Your task to perform on an android device: turn off sleep mode Image 0: 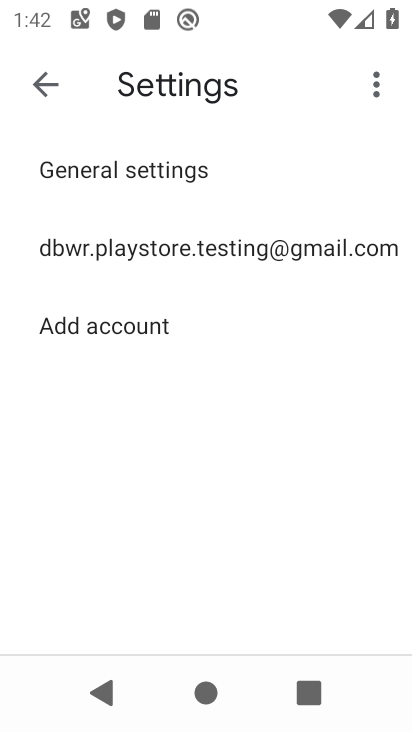
Step 0: press home button
Your task to perform on an android device: turn off sleep mode Image 1: 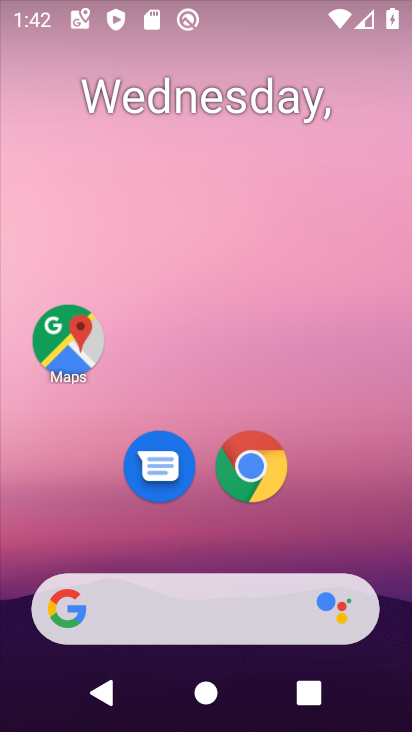
Step 1: drag from (310, 520) to (318, 9)
Your task to perform on an android device: turn off sleep mode Image 2: 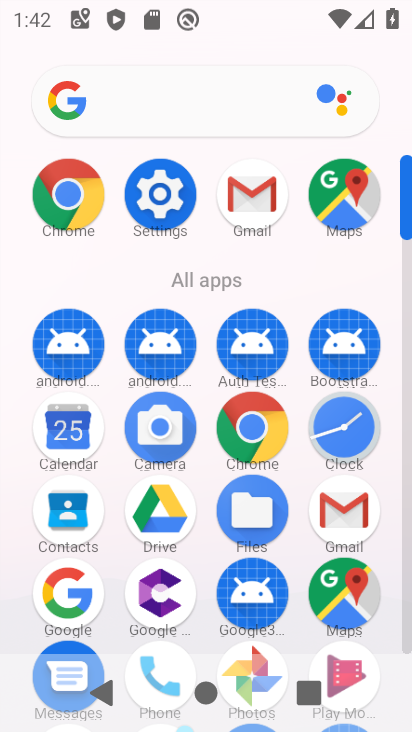
Step 2: click (158, 194)
Your task to perform on an android device: turn off sleep mode Image 3: 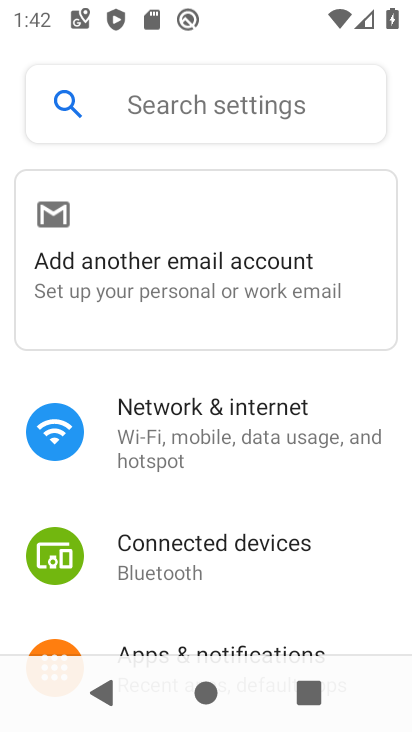
Step 3: drag from (258, 596) to (305, 337)
Your task to perform on an android device: turn off sleep mode Image 4: 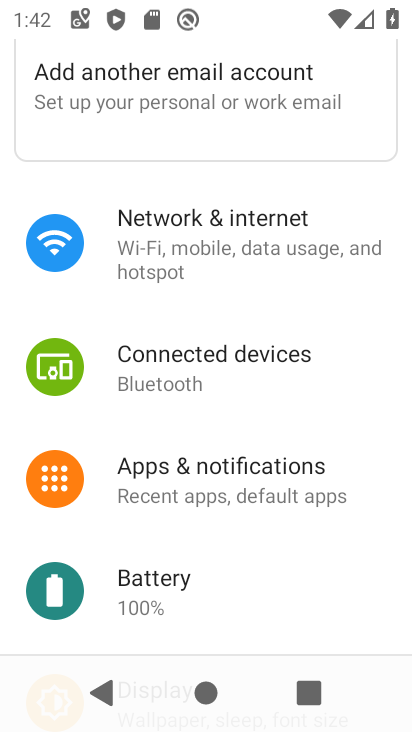
Step 4: drag from (224, 609) to (275, 294)
Your task to perform on an android device: turn off sleep mode Image 5: 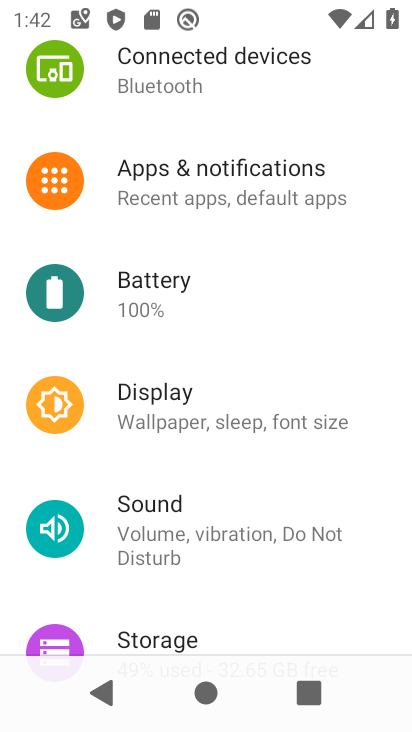
Step 5: click (242, 399)
Your task to perform on an android device: turn off sleep mode Image 6: 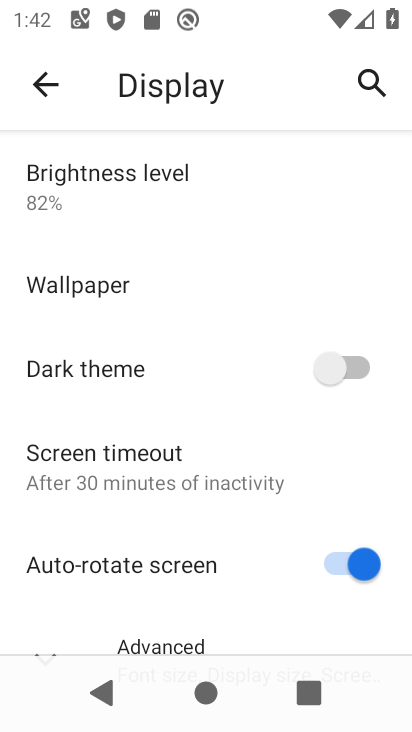
Step 6: drag from (215, 345) to (242, 144)
Your task to perform on an android device: turn off sleep mode Image 7: 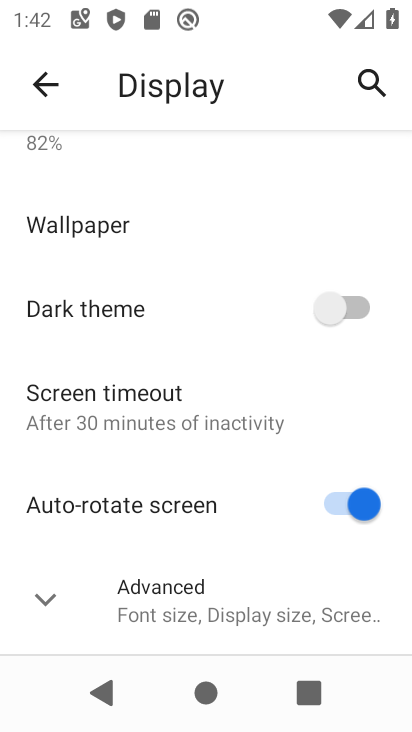
Step 7: click (55, 611)
Your task to perform on an android device: turn off sleep mode Image 8: 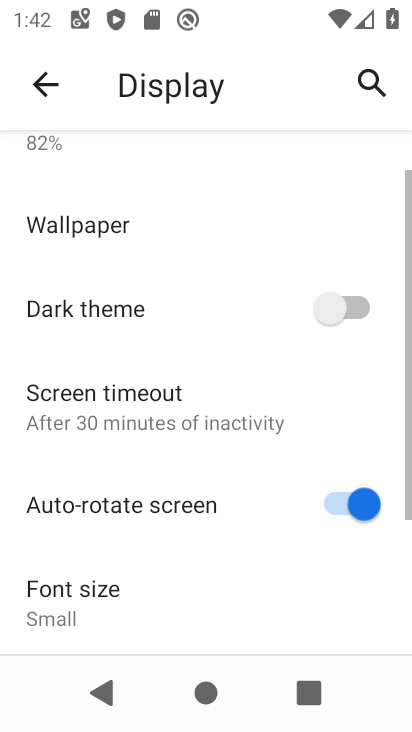
Step 8: task complete